Your task to perform on an android device: Open Youtube and go to "Your channel" Image 0: 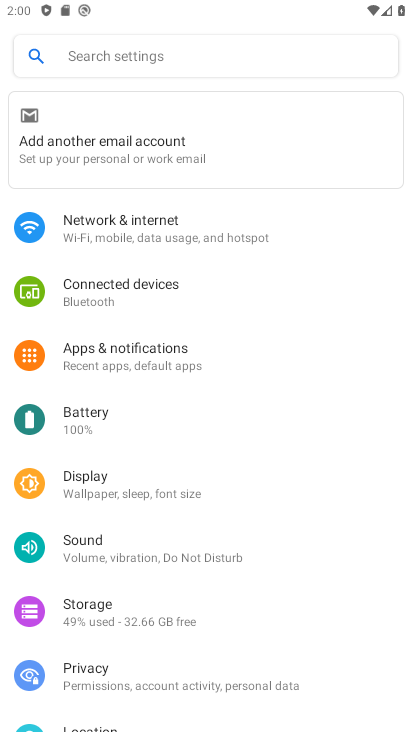
Step 0: press back button
Your task to perform on an android device: Open Youtube and go to "Your channel" Image 1: 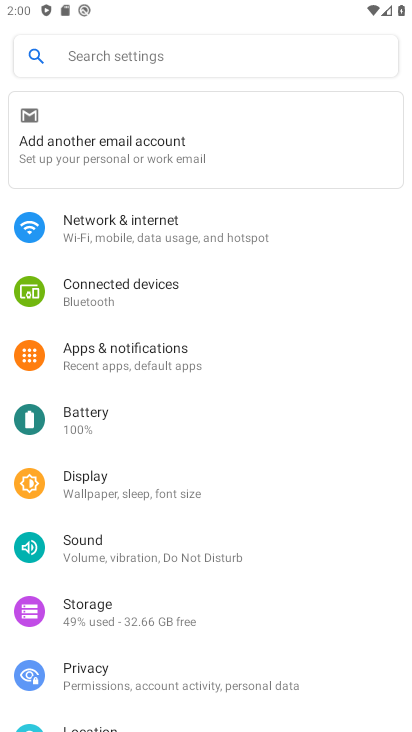
Step 1: press back button
Your task to perform on an android device: Open Youtube and go to "Your channel" Image 2: 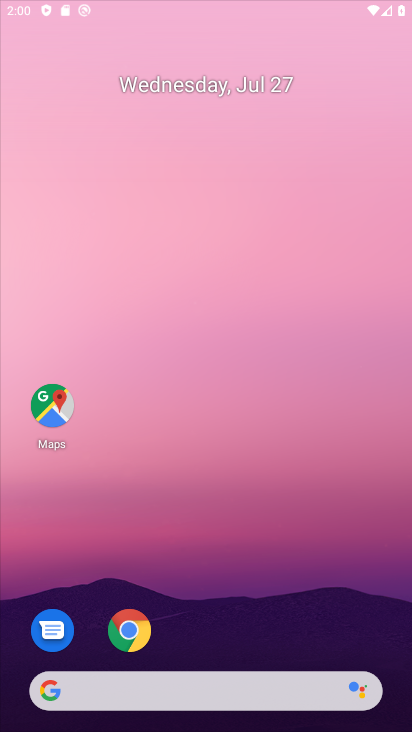
Step 2: press back button
Your task to perform on an android device: Open Youtube and go to "Your channel" Image 3: 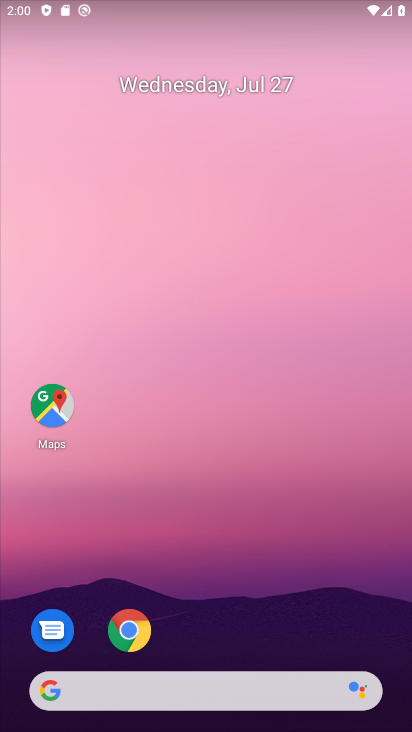
Step 3: drag from (249, 501) to (206, 170)
Your task to perform on an android device: Open Youtube and go to "Your channel" Image 4: 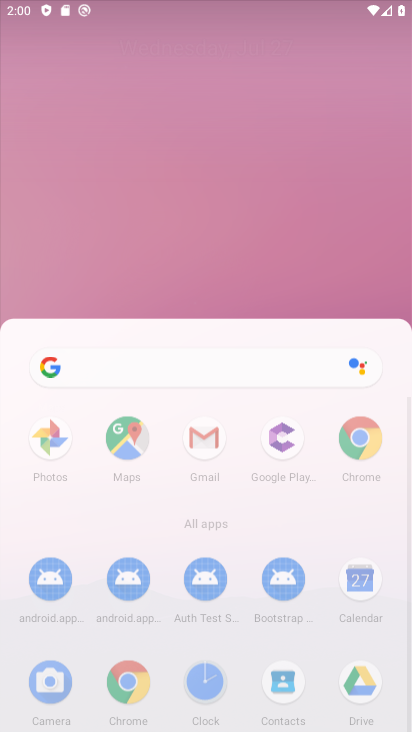
Step 4: drag from (209, 510) to (211, 215)
Your task to perform on an android device: Open Youtube and go to "Your channel" Image 5: 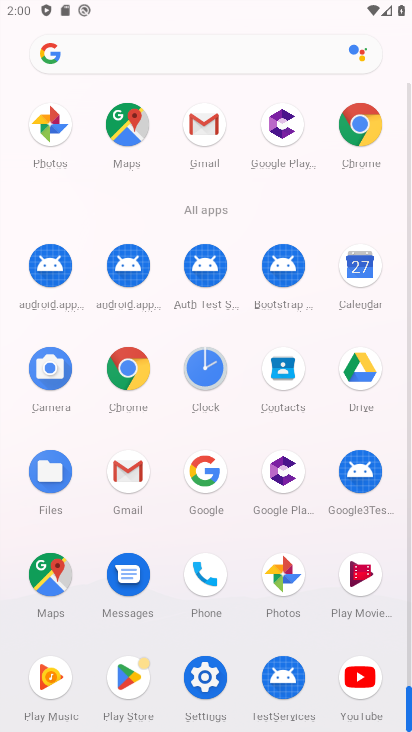
Step 5: click (358, 667)
Your task to perform on an android device: Open Youtube and go to "Your channel" Image 6: 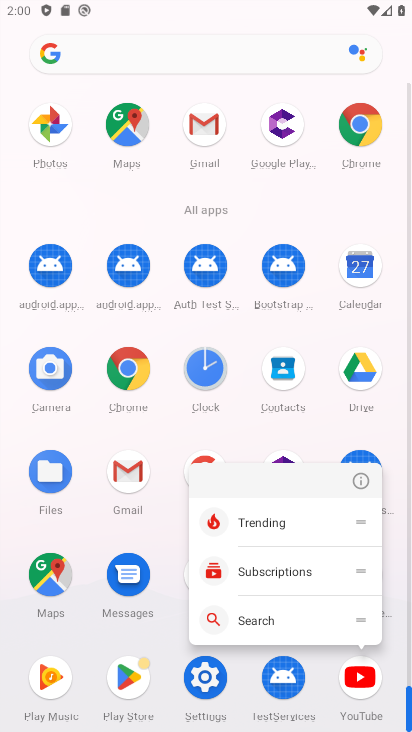
Step 6: click (361, 681)
Your task to perform on an android device: Open Youtube and go to "Your channel" Image 7: 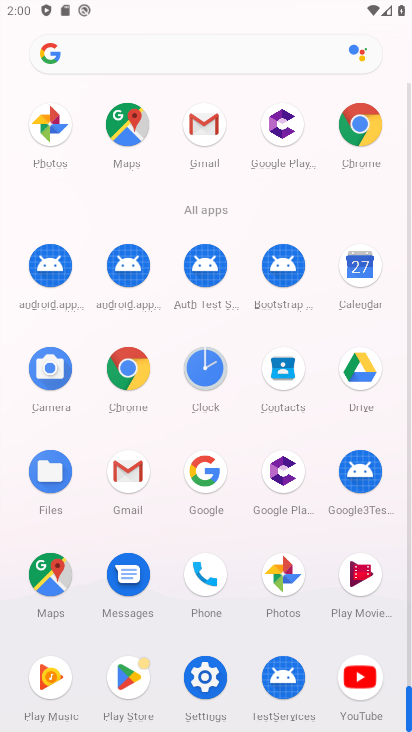
Step 7: click (360, 681)
Your task to perform on an android device: Open Youtube and go to "Your channel" Image 8: 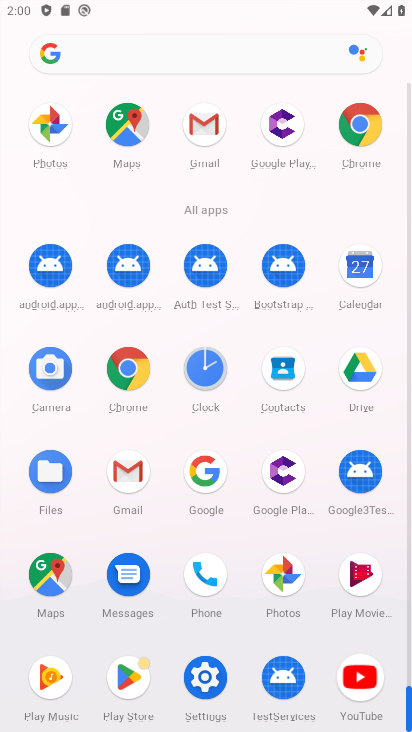
Step 8: click (359, 681)
Your task to perform on an android device: Open Youtube and go to "Your channel" Image 9: 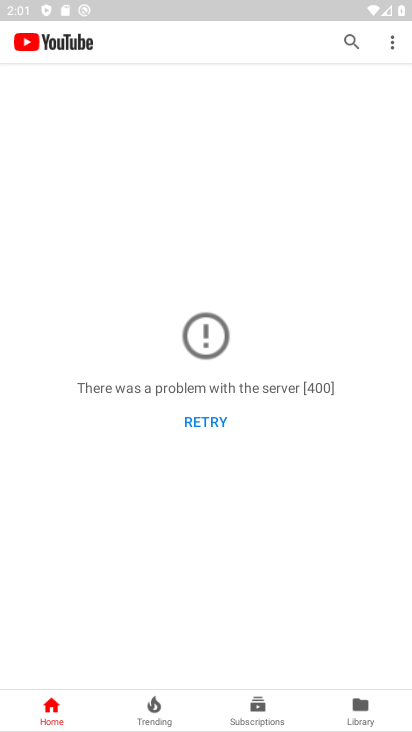
Step 9: task complete